Your task to perform on an android device: turn on bluetooth scan Image 0: 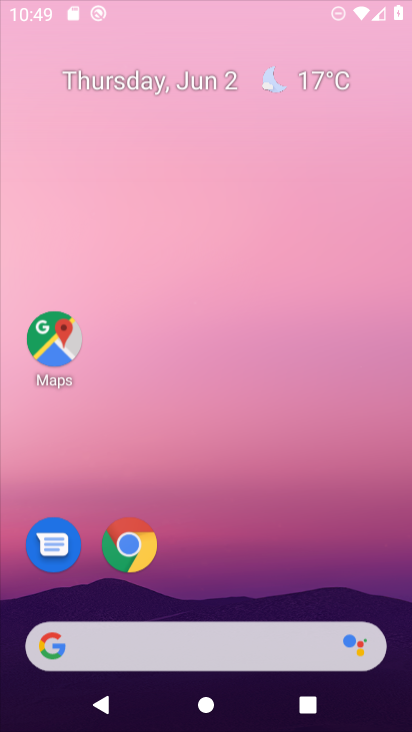
Step 0: press home button
Your task to perform on an android device: turn on bluetooth scan Image 1: 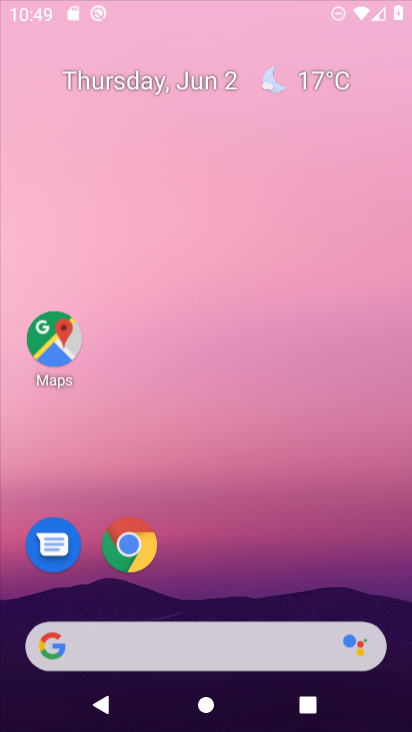
Step 1: click (204, 47)
Your task to perform on an android device: turn on bluetooth scan Image 2: 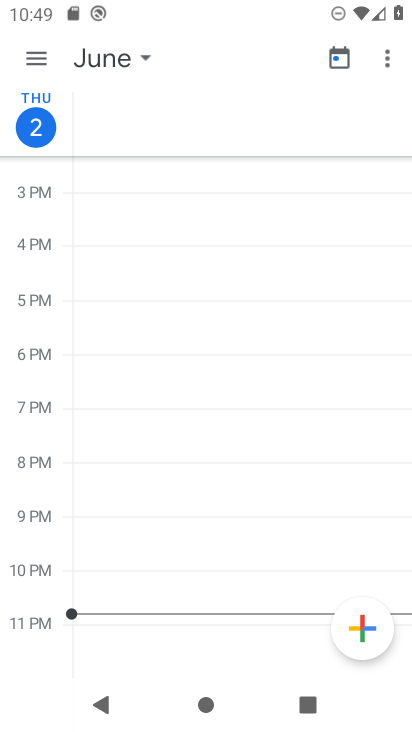
Step 2: drag from (261, 575) to (242, 267)
Your task to perform on an android device: turn on bluetooth scan Image 3: 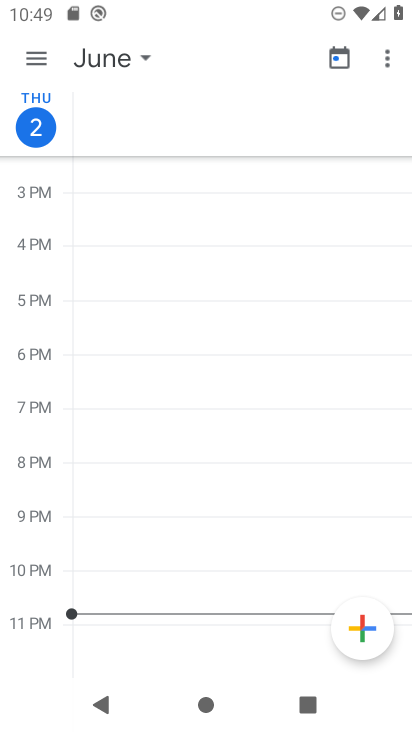
Step 3: press back button
Your task to perform on an android device: turn on bluetooth scan Image 4: 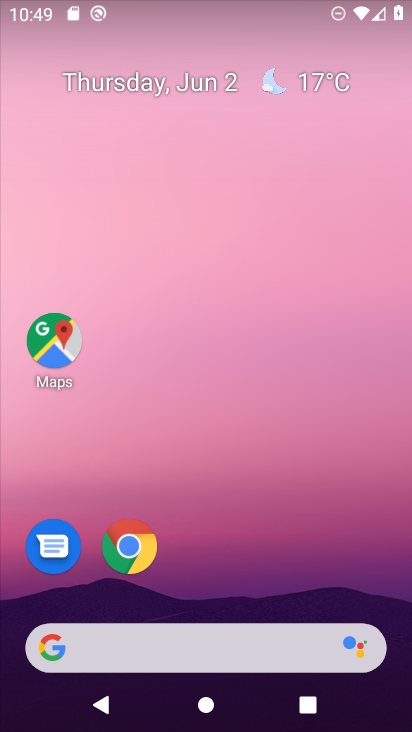
Step 4: drag from (278, 570) to (233, 43)
Your task to perform on an android device: turn on bluetooth scan Image 5: 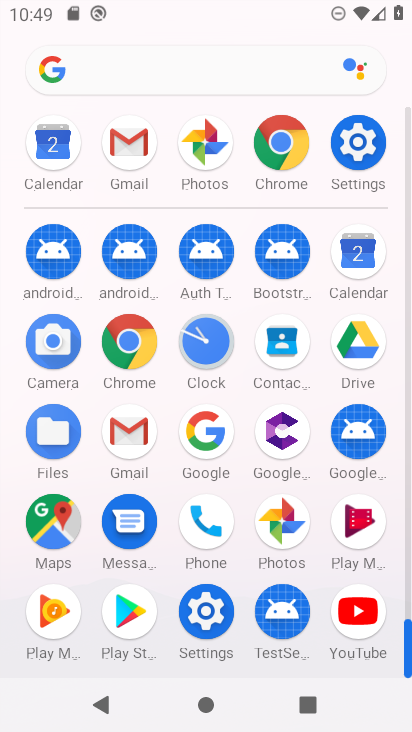
Step 5: click (207, 609)
Your task to perform on an android device: turn on bluetooth scan Image 6: 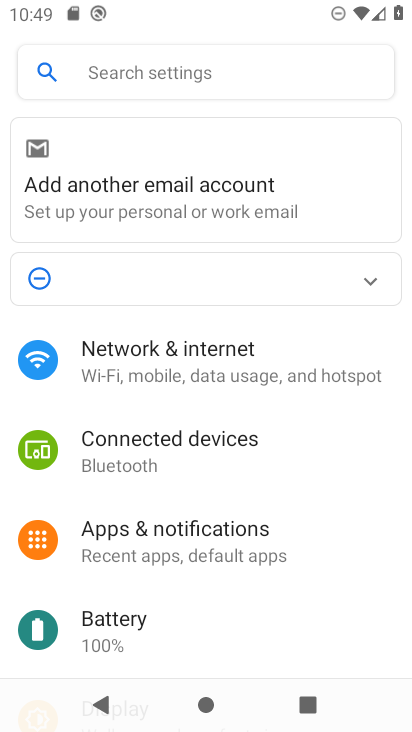
Step 6: drag from (290, 569) to (323, 217)
Your task to perform on an android device: turn on bluetooth scan Image 7: 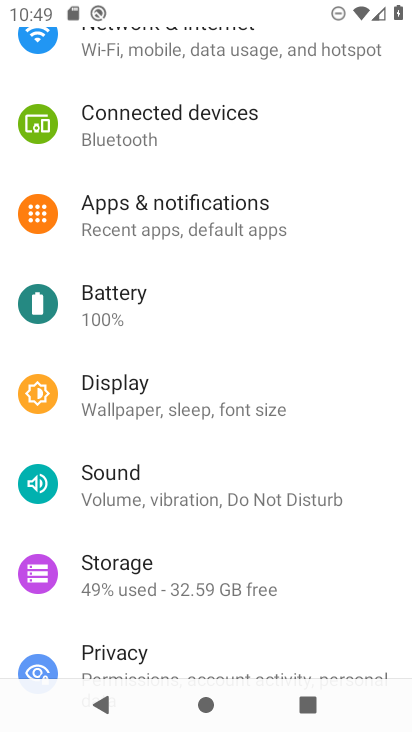
Step 7: drag from (222, 572) to (277, 217)
Your task to perform on an android device: turn on bluetooth scan Image 8: 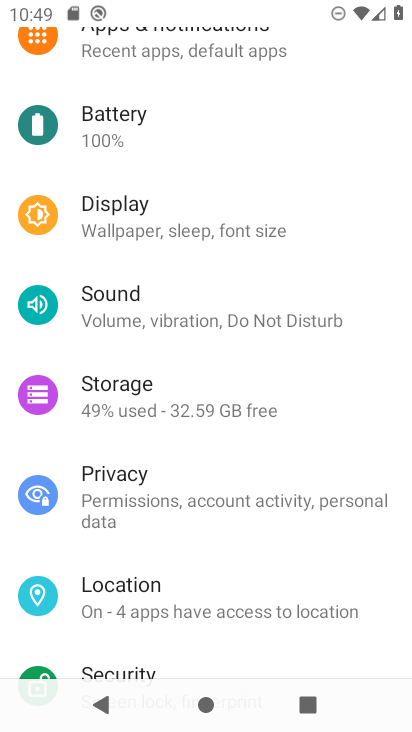
Step 8: click (198, 580)
Your task to perform on an android device: turn on bluetooth scan Image 9: 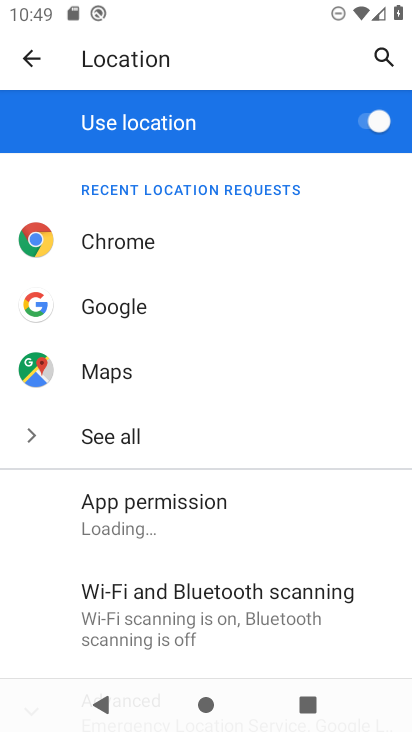
Step 9: click (227, 615)
Your task to perform on an android device: turn on bluetooth scan Image 10: 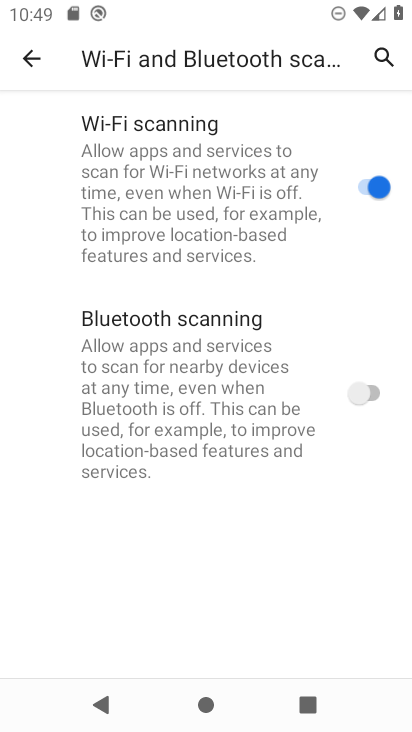
Step 10: click (357, 389)
Your task to perform on an android device: turn on bluetooth scan Image 11: 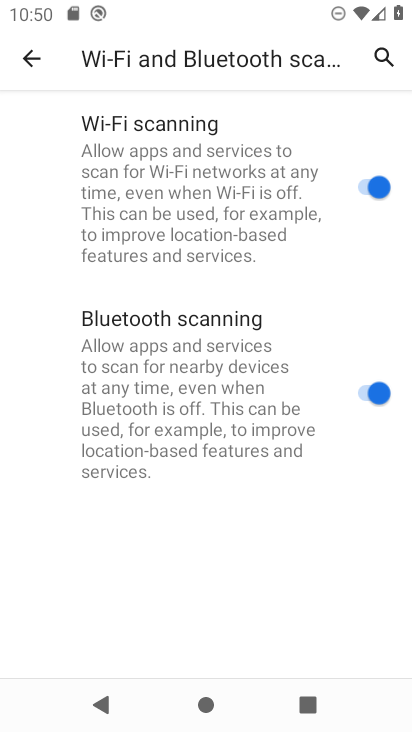
Step 11: task complete